Your task to perform on an android device: check out phone information Image 0: 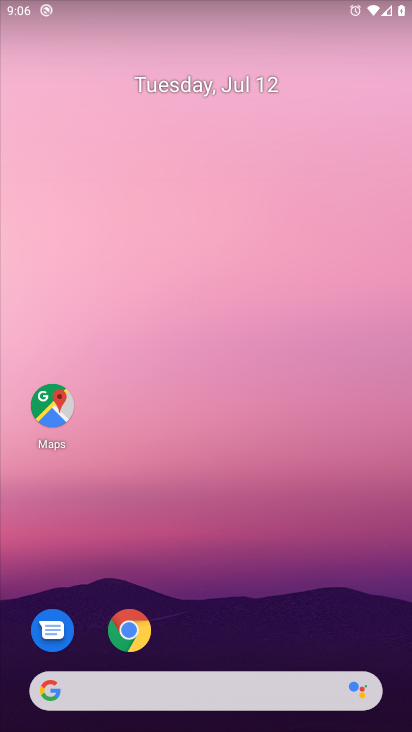
Step 0: press home button
Your task to perform on an android device: check out phone information Image 1: 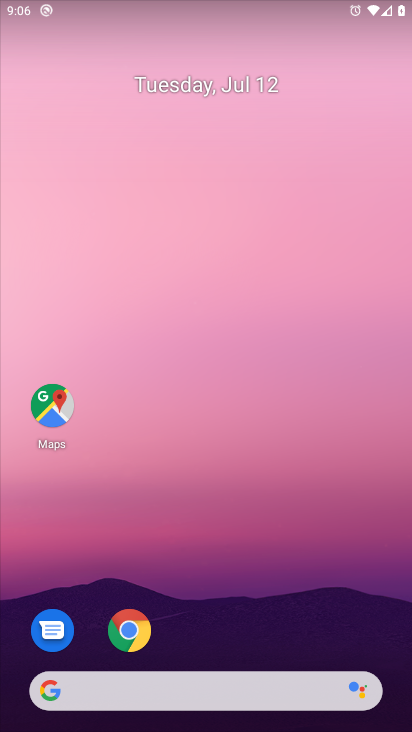
Step 1: drag from (223, 639) to (187, 158)
Your task to perform on an android device: check out phone information Image 2: 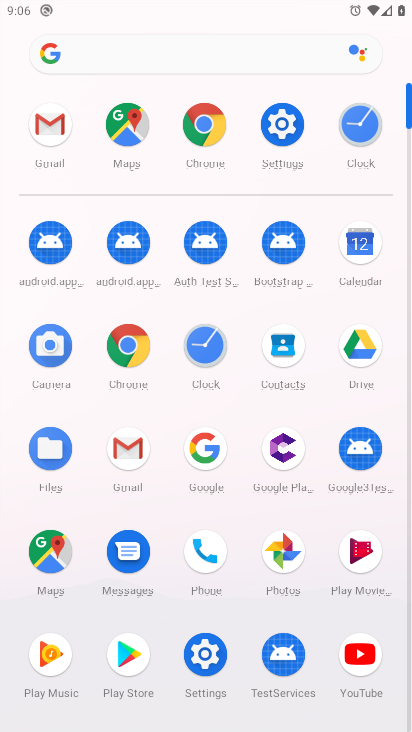
Step 2: click (273, 129)
Your task to perform on an android device: check out phone information Image 3: 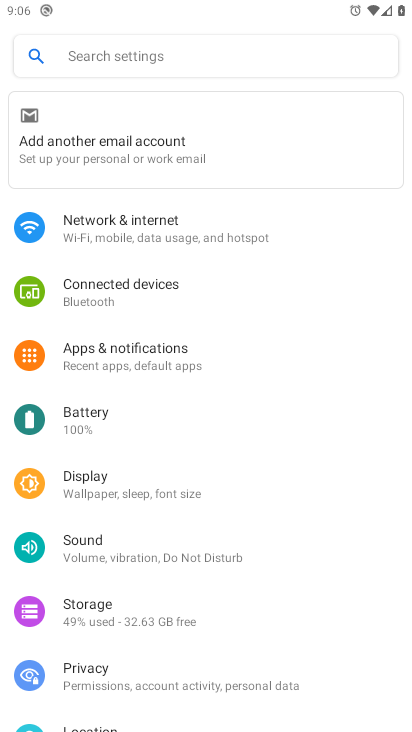
Step 3: drag from (311, 640) to (300, 140)
Your task to perform on an android device: check out phone information Image 4: 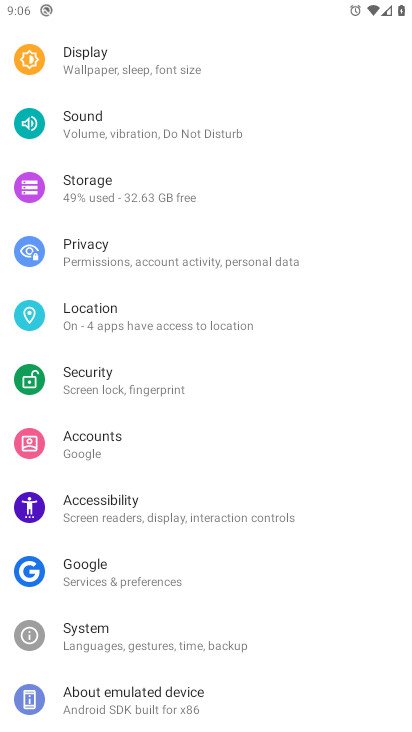
Step 4: click (124, 714)
Your task to perform on an android device: check out phone information Image 5: 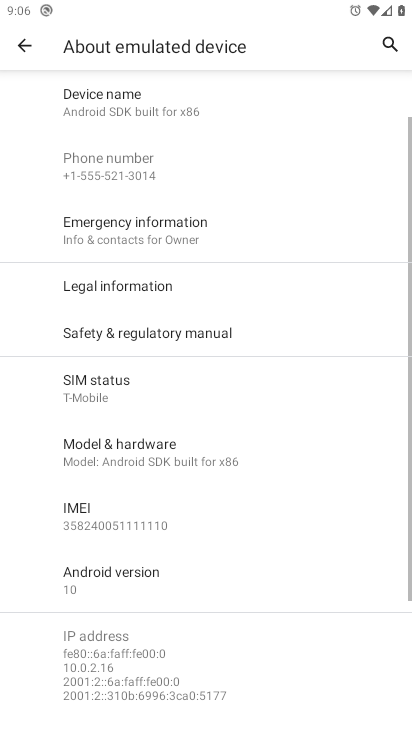
Step 5: task complete